Your task to perform on an android device: turn off data saver in the chrome app Image 0: 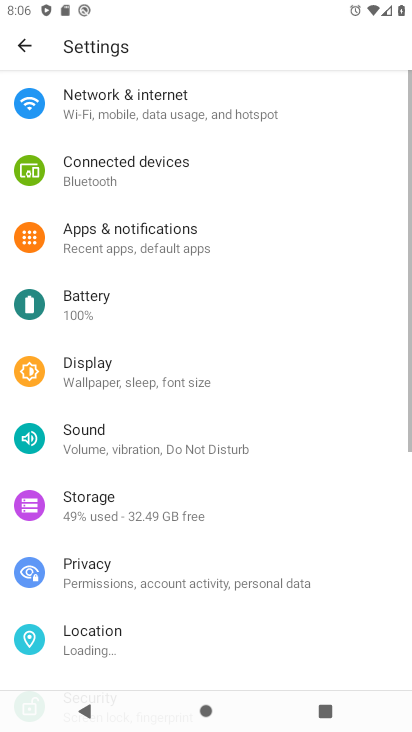
Step 0: click (171, 117)
Your task to perform on an android device: turn off data saver in the chrome app Image 1: 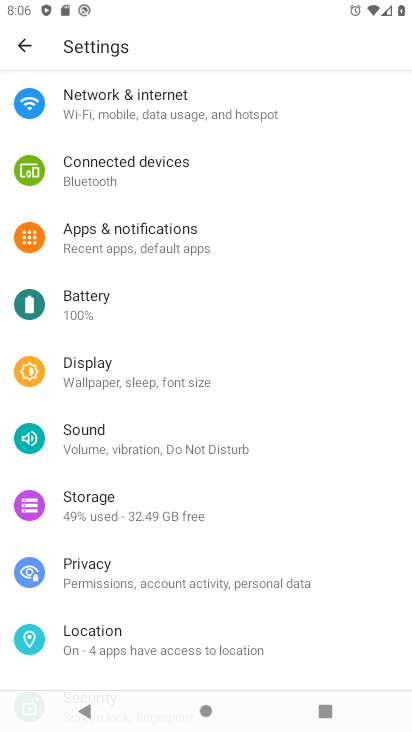
Step 1: drag from (124, 531) to (64, 108)
Your task to perform on an android device: turn off data saver in the chrome app Image 2: 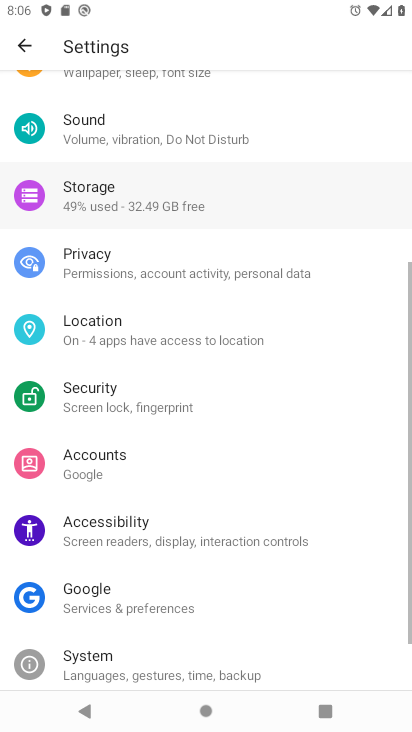
Step 2: drag from (170, 340) to (183, 90)
Your task to perform on an android device: turn off data saver in the chrome app Image 3: 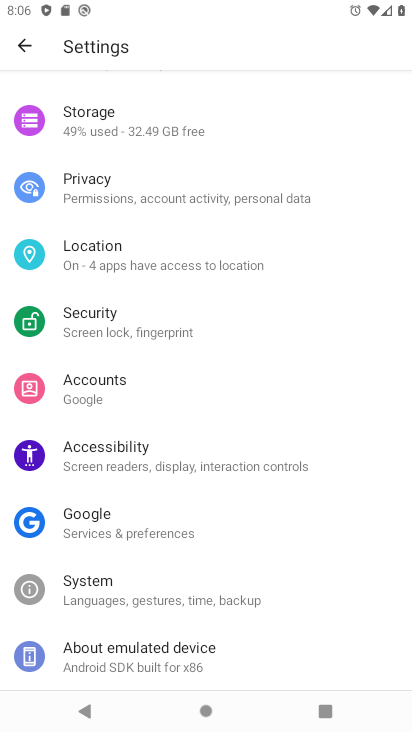
Step 3: press home button
Your task to perform on an android device: turn off data saver in the chrome app Image 4: 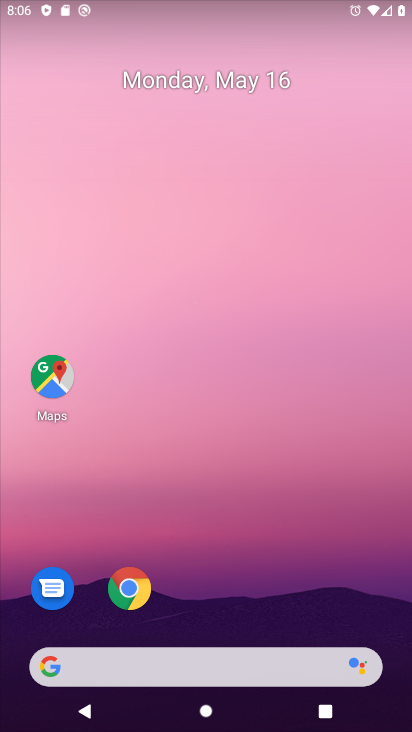
Step 4: drag from (282, 622) to (255, 300)
Your task to perform on an android device: turn off data saver in the chrome app Image 5: 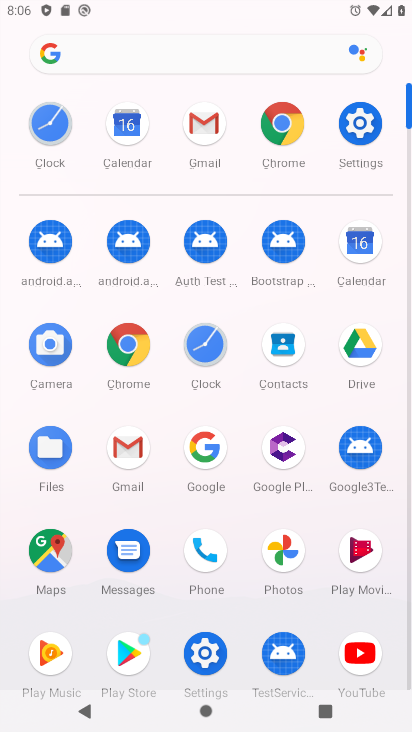
Step 5: click (277, 121)
Your task to perform on an android device: turn off data saver in the chrome app Image 6: 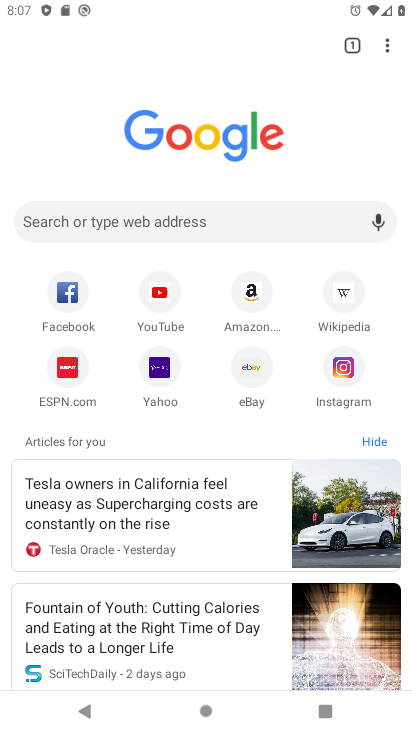
Step 6: drag from (381, 51) to (221, 378)
Your task to perform on an android device: turn off data saver in the chrome app Image 7: 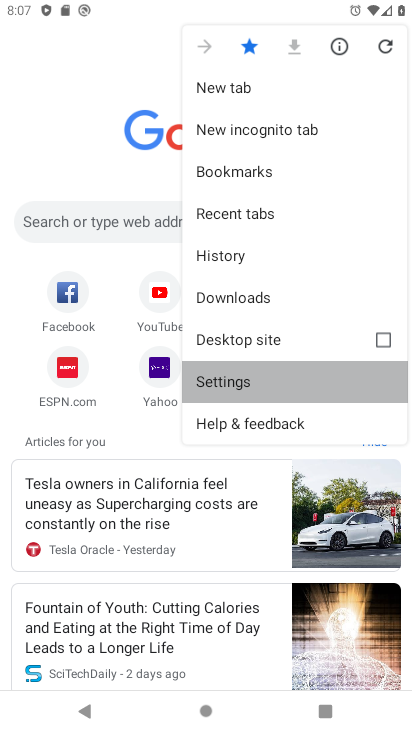
Step 7: click (222, 379)
Your task to perform on an android device: turn off data saver in the chrome app Image 8: 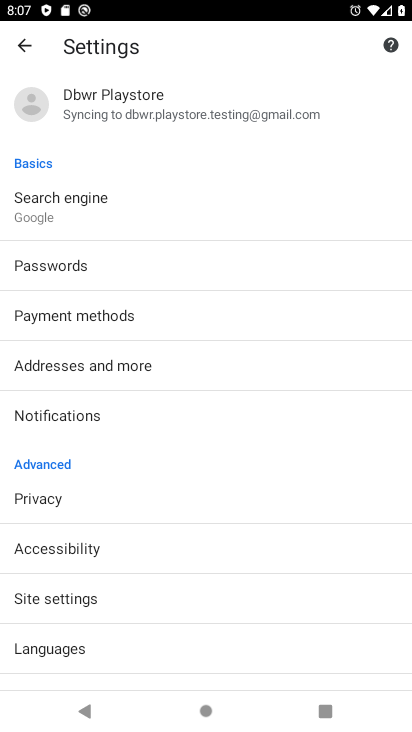
Step 8: drag from (59, 397) to (17, 85)
Your task to perform on an android device: turn off data saver in the chrome app Image 9: 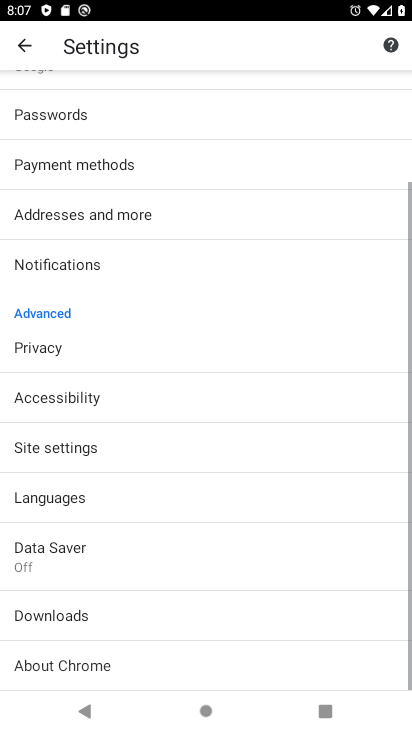
Step 9: drag from (60, 401) to (98, 5)
Your task to perform on an android device: turn off data saver in the chrome app Image 10: 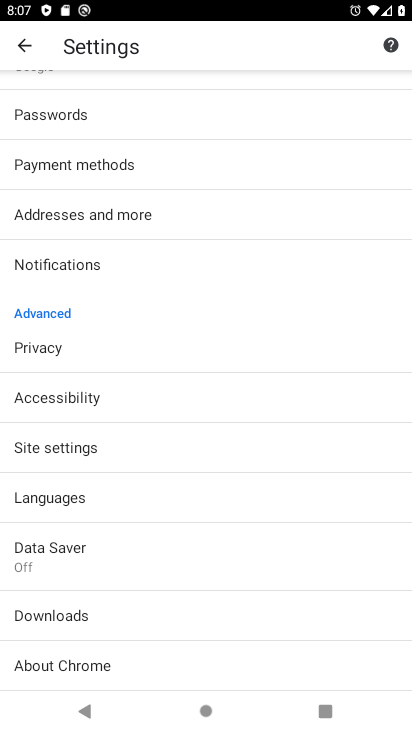
Step 10: click (43, 494)
Your task to perform on an android device: turn off data saver in the chrome app Image 11: 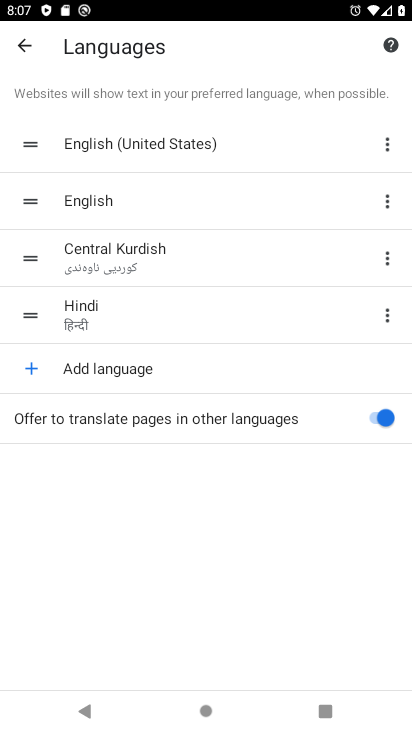
Step 11: click (9, 34)
Your task to perform on an android device: turn off data saver in the chrome app Image 12: 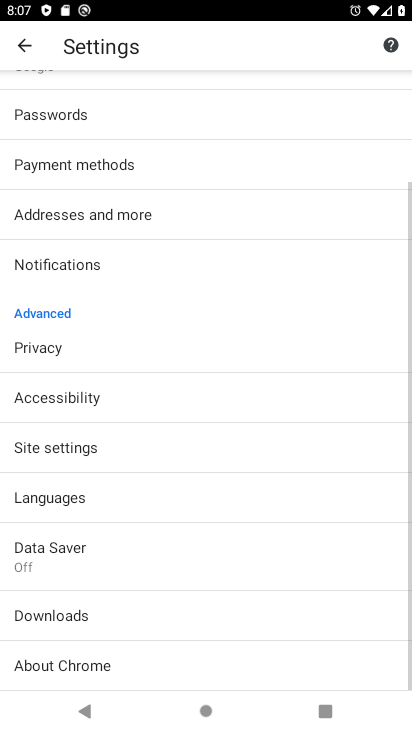
Step 12: click (31, 549)
Your task to perform on an android device: turn off data saver in the chrome app Image 13: 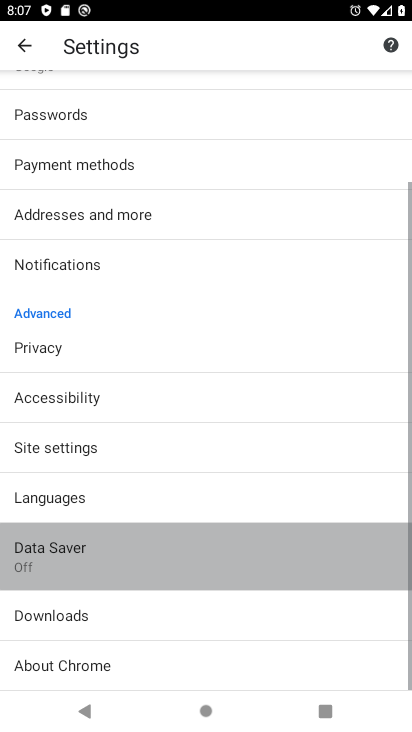
Step 13: click (31, 547)
Your task to perform on an android device: turn off data saver in the chrome app Image 14: 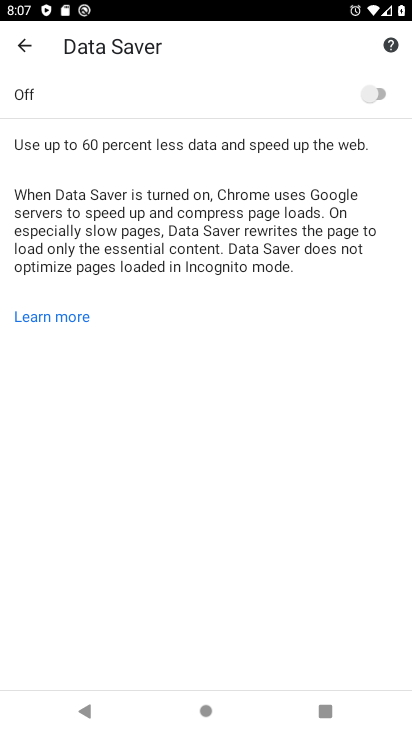
Step 14: click (366, 85)
Your task to perform on an android device: turn off data saver in the chrome app Image 15: 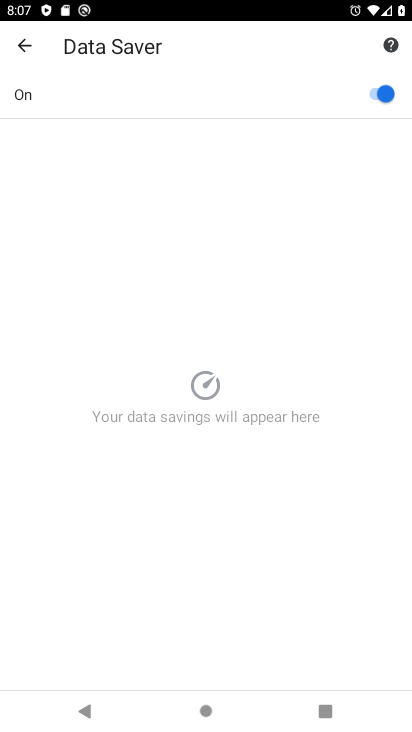
Step 15: task complete